Your task to perform on an android device: Go to battery settings Image 0: 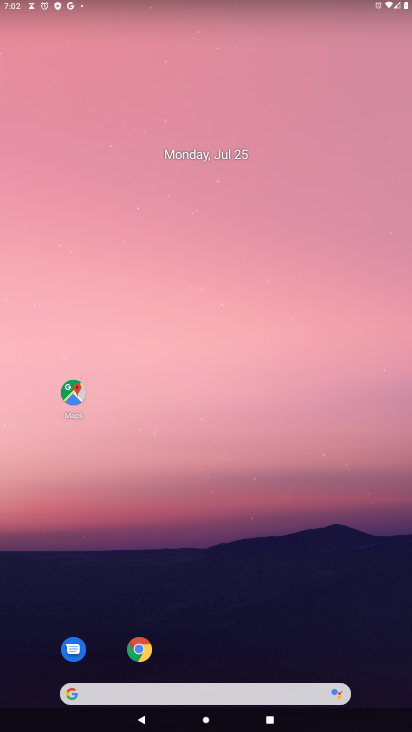
Step 0: drag from (223, 674) to (345, 137)
Your task to perform on an android device: Go to battery settings Image 1: 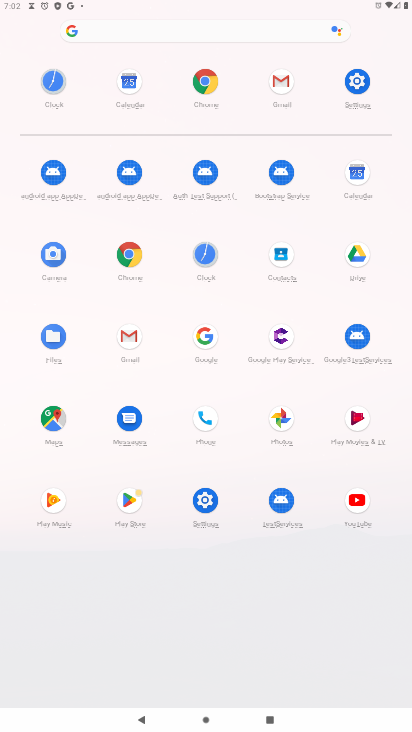
Step 1: click (359, 77)
Your task to perform on an android device: Go to battery settings Image 2: 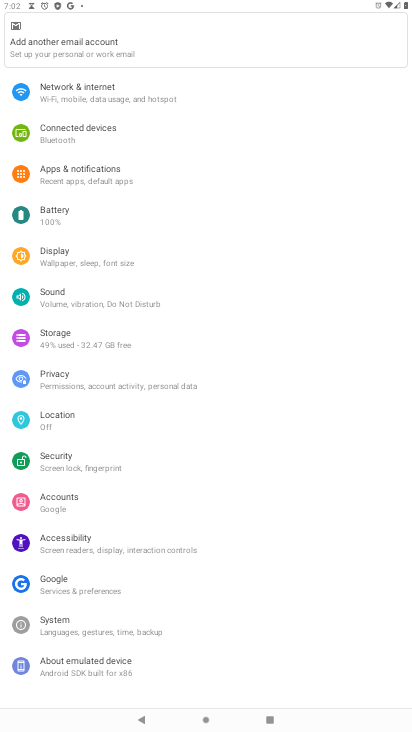
Step 2: click (67, 219)
Your task to perform on an android device: Go to battery settings Image 3: 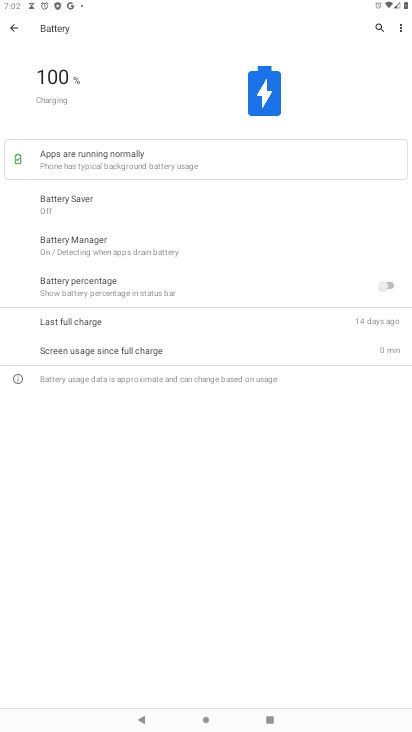
Step 3: task complete